Your task to perform on an android device: open a new tab in the chrome app Image 0: 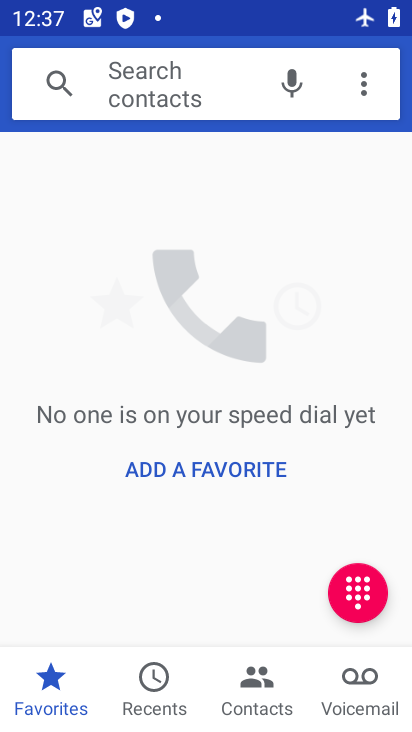
Step 0: press home button
Your task to perform on an android device: open a new tab in the chrome app Image 1: 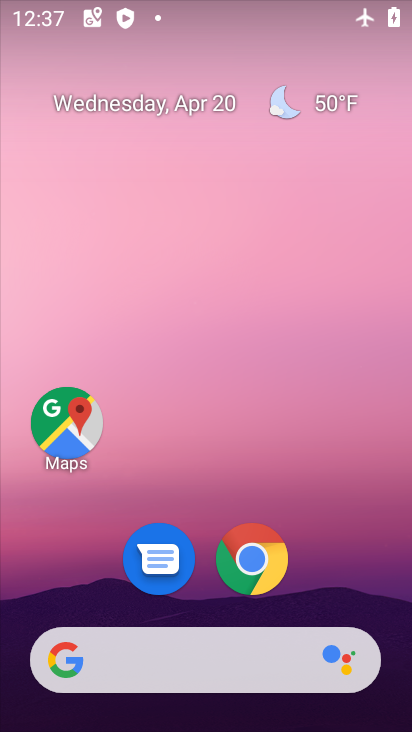
Step 1: click (252, 557)
Your task to perform on an android device: open a new tab in the chrome app Image 2: 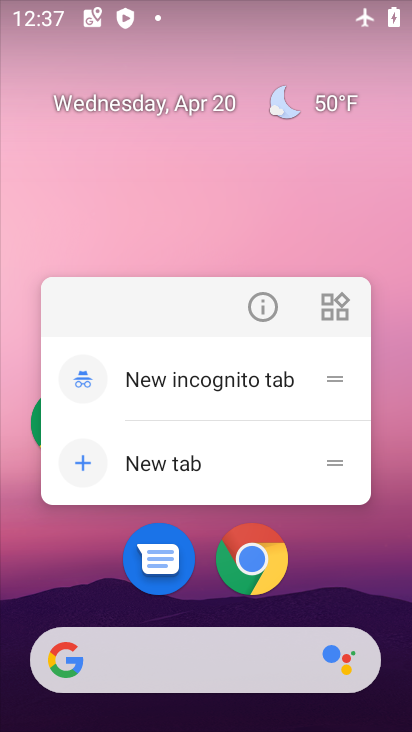
Step 2: click (83, 465)
Your task to perform on an android device: open a new tab in the chrome app Image 3: 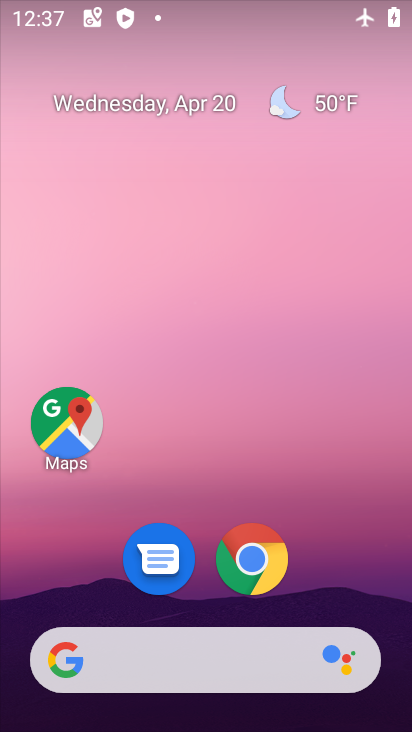
Step 3: click (256, 561)
Your task to perform on an android device: open a new tab in the chrome app Image 4: 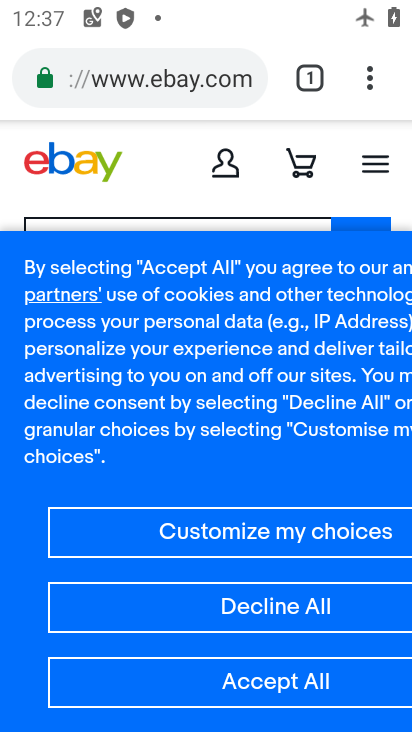
Step 4: click (306, 83)
Your task to perform on an android device: open a new tab in the chrome app Image 5: 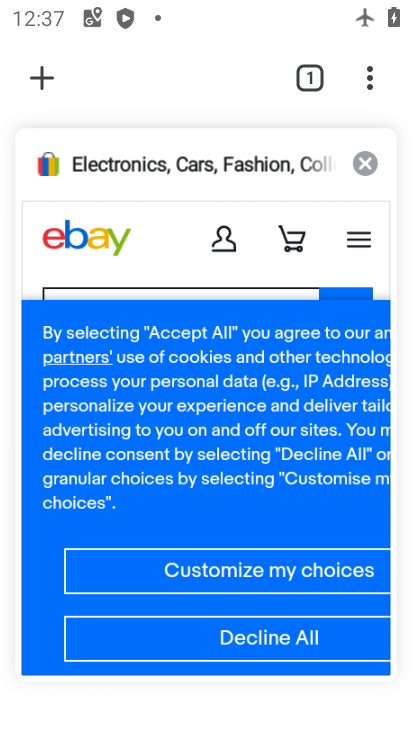
Step 5: click (39, 72)
Your task to perform on an android device: open a new tab in the chrome app Image 6: 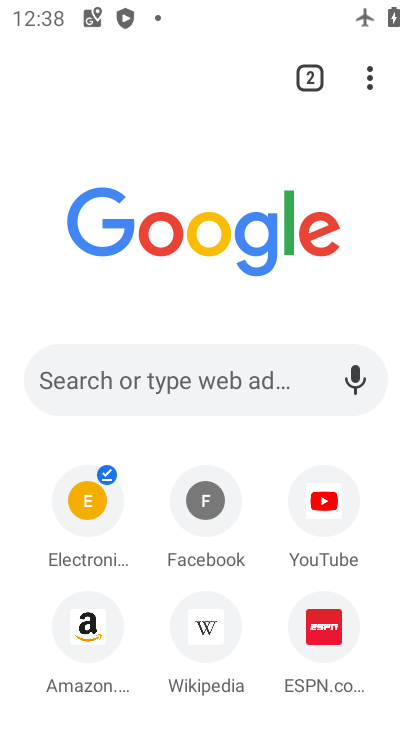
Step 6: task complete